Your task to perform on an android device: Go to CNN.com Image 0: 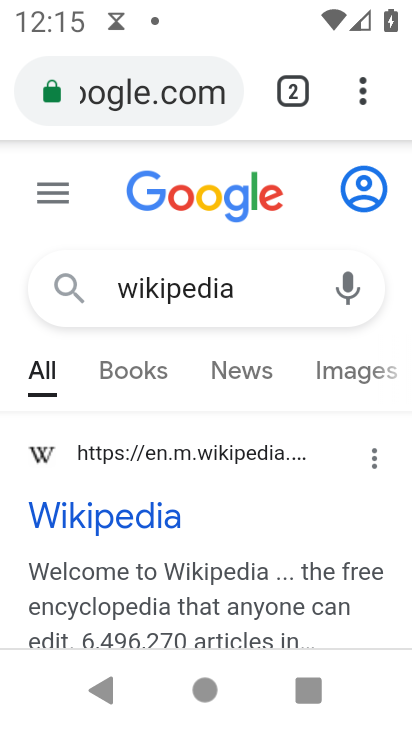
Step 0: press home button
Your task to perform on an android device: Go to CNN.com Image 1: 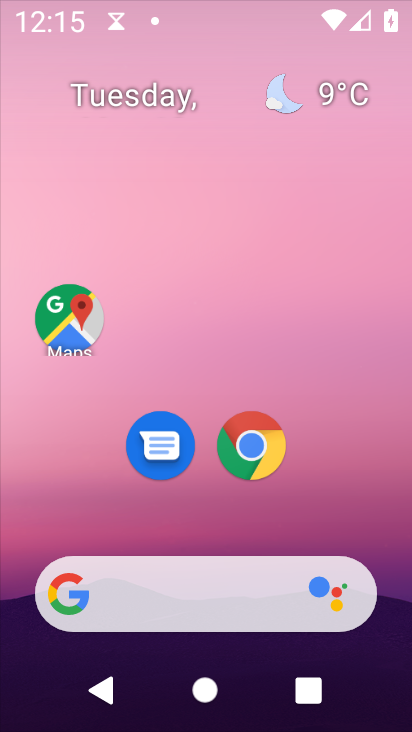
Step 1: drag from (259, 622) to (251, 62)
Your task to perform on an android device: Go to CNN.com Image 2: 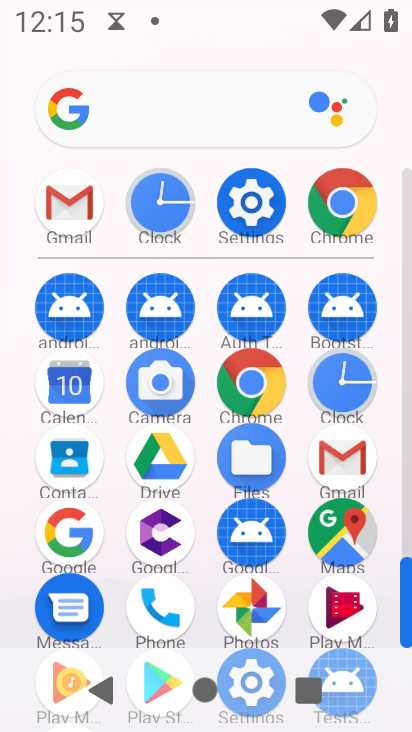
Step 2: click (264, 381)
Your task to perform on an android device: Go to CNN.com Image 3: 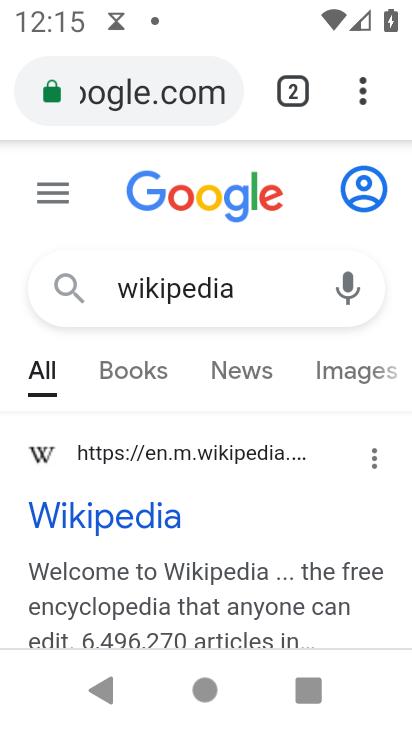
Step 3: click (213, 103)
Your task to perform on an android device: Go to CNN.com Image 4: 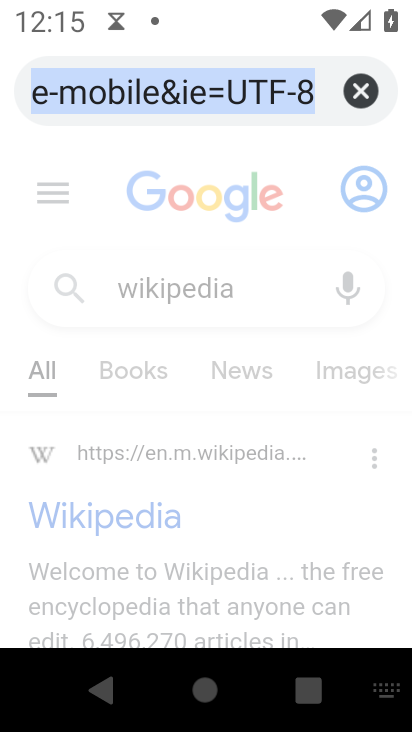
Step 4: click (347, 90)
Your task to perform on an android device: Go to CNN.com Image 5: 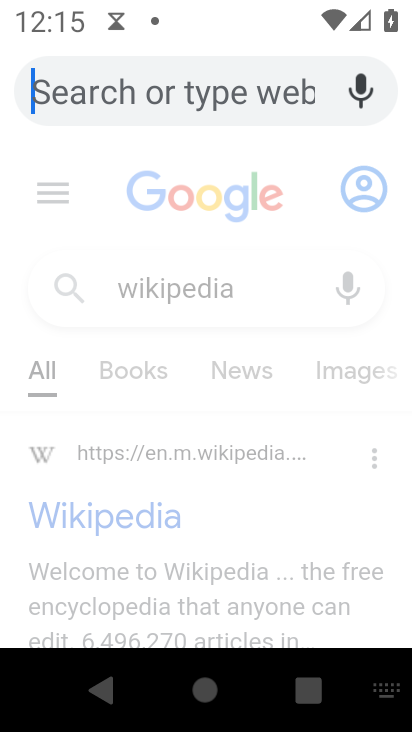
Step 5: type "cnn.com"
Your task to perform on an android device: Go to CNN.com Image 6: 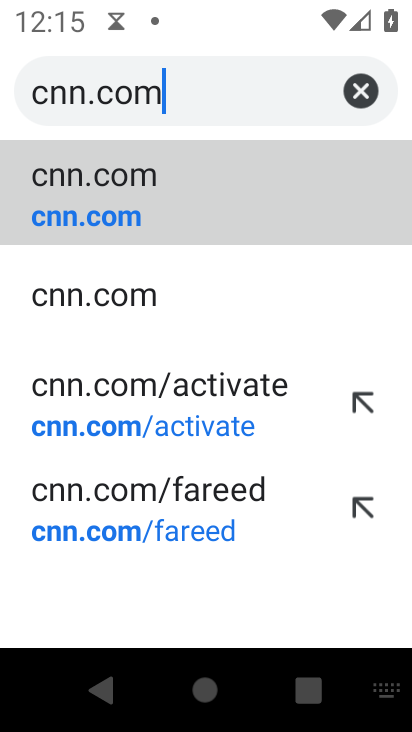
Step 6: click (321, 196)
Your task to perform on an android device: Go to CNN.com Image 7: 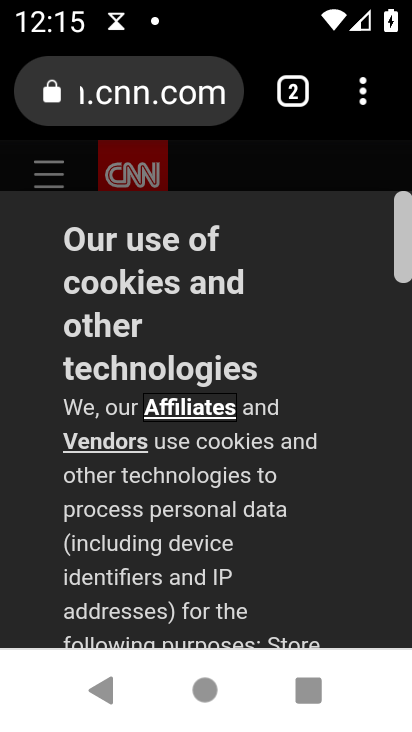
Step 7: task complete